Your task to perform on an android device: Open settings on Google Maps Image 0: 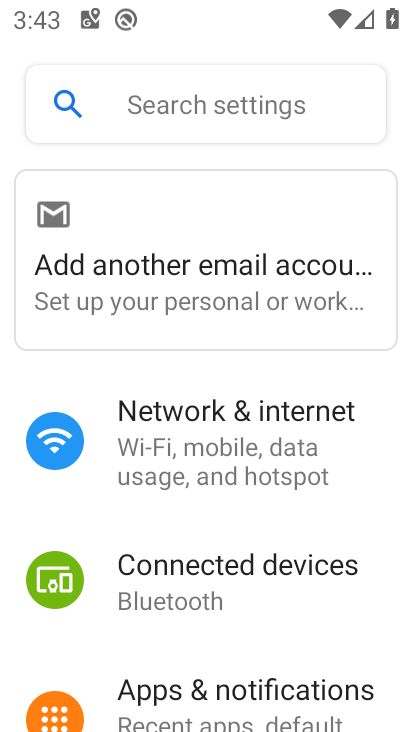
Step 0: press home button
Your task to perform on an android device: Open settings on Google Maps Image 1: 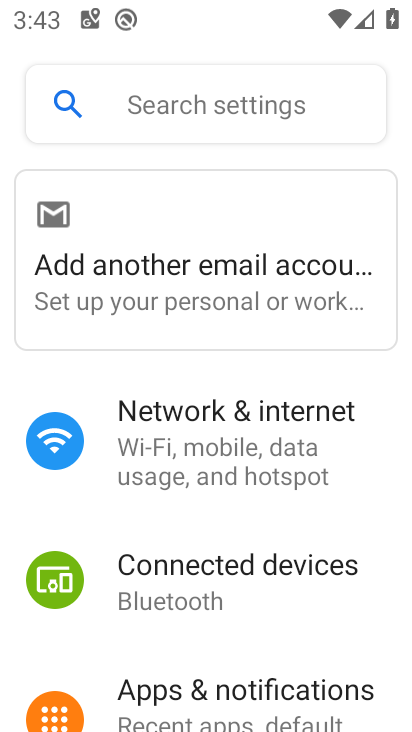
Step 1: press home button
Your task to perform on an android device: Open settings on Google Maps Image 2: 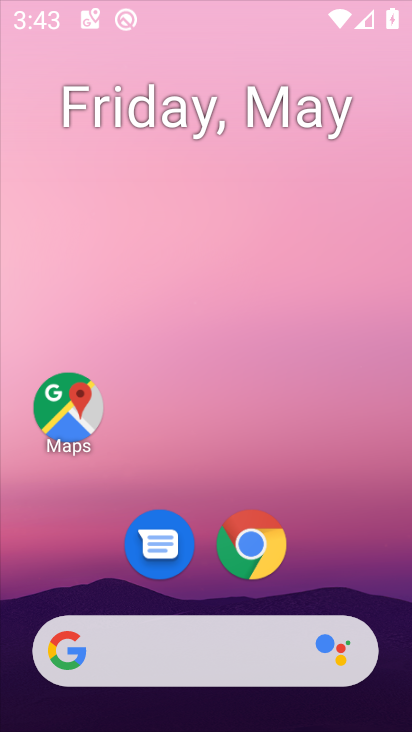
Step 2: press home button
Your task to perform on an android device: Open settings on Google Maps Image 3: 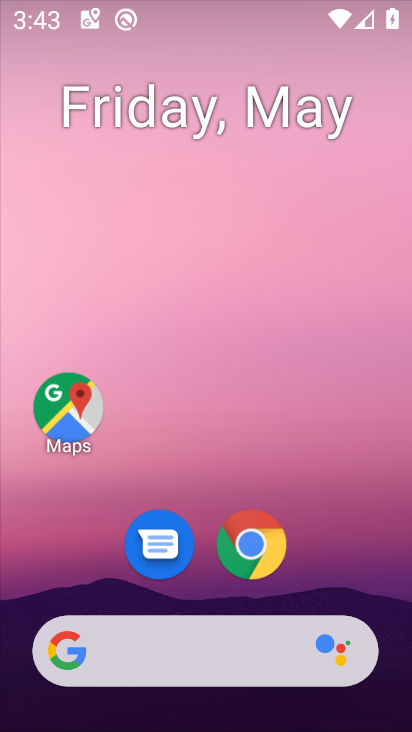
Step 3: press home button
Your task to perform on an android device: Open settings on Google Maps Image 4: 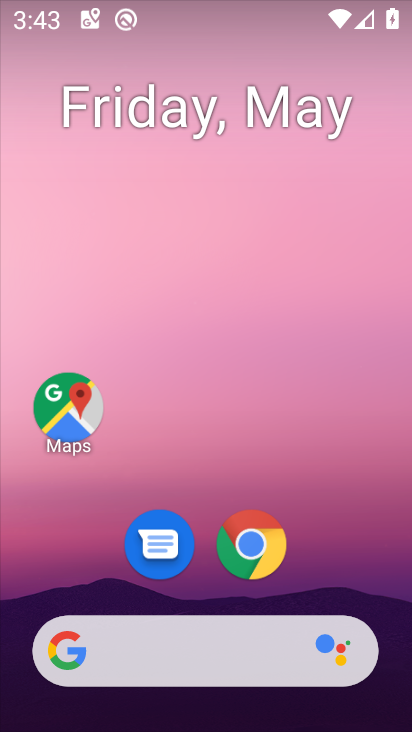
Step 4: press home button
Your task to perform on an android device: Open settings on Google Maps Image 5: 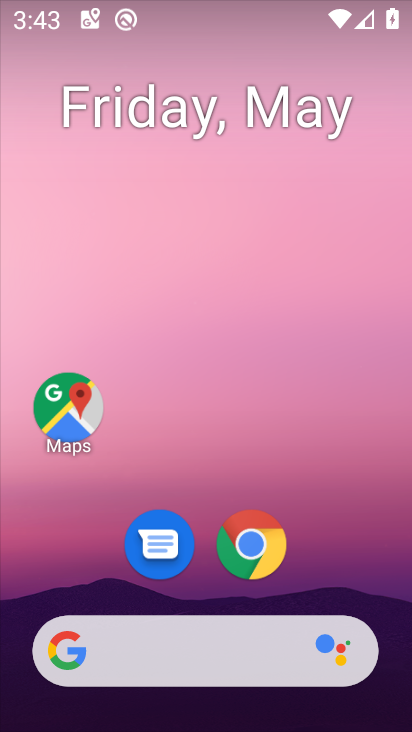
Step 5: drag from (276, 688) to (208, 56)
Your task to perform on an android device: Open settings on Google Maps Image 6: 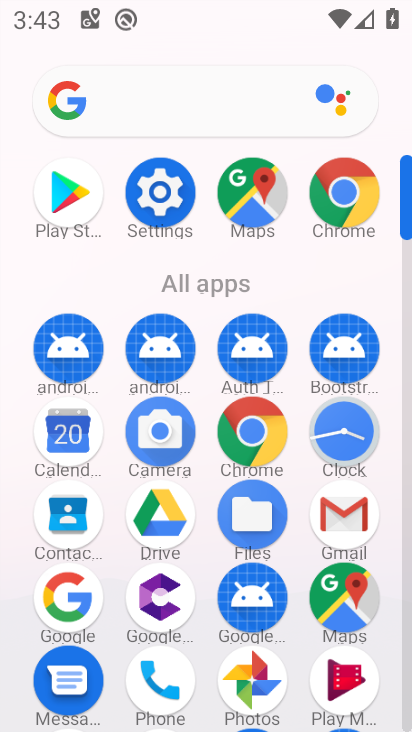
Step 6: click (258, 195)
Your task to perform on an android device: Open settings on Google Maps Image 7: 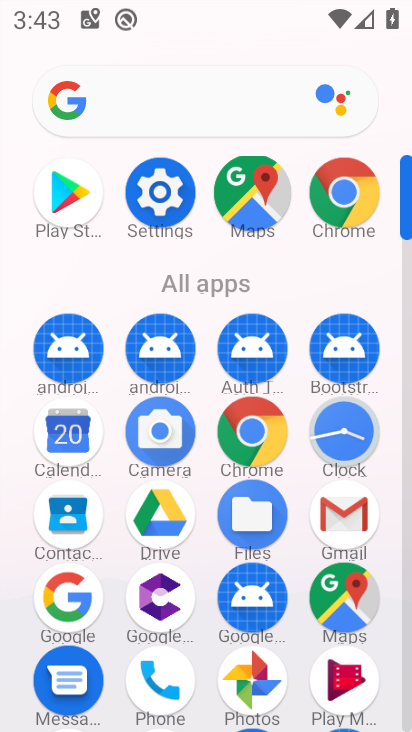
Step 7: click (258, 195)
Your task to perform on an android device: Open settings on Google Maps Image 8: 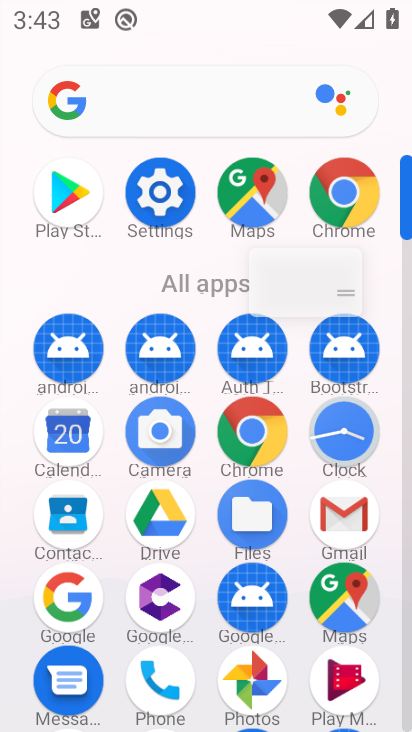
Step 8: click (258, 195)
Your task to perform on an android device: Open settings on Google Maps Image 9: 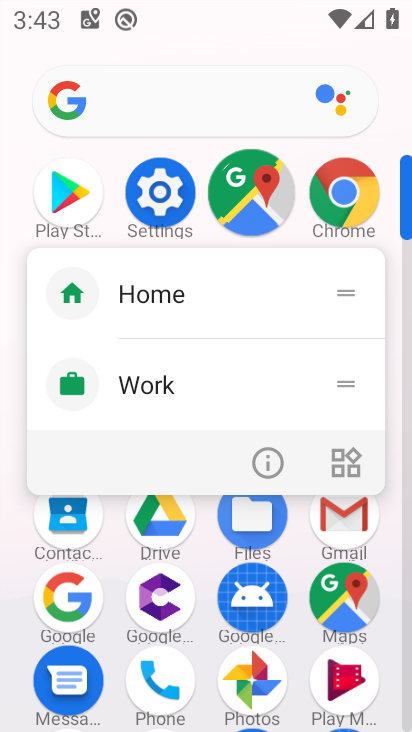
Step 9: click (258, 195)
Your task to perform on an android device: Open settings on Google Maps Image 10: 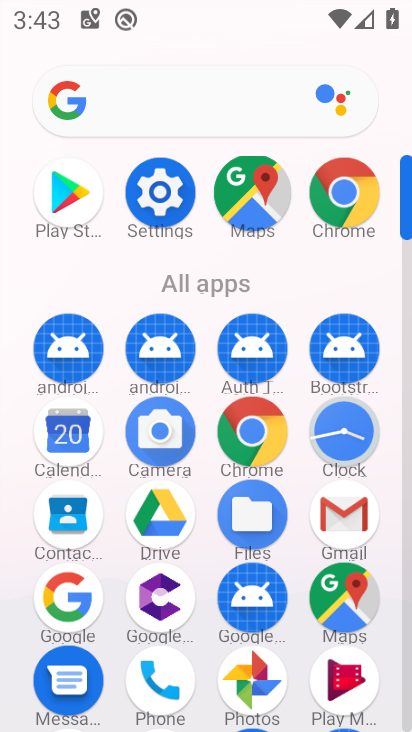
Step 10: click (258, 195)
Your task to perform on an android device: Open settings on Google Maps Image 11: 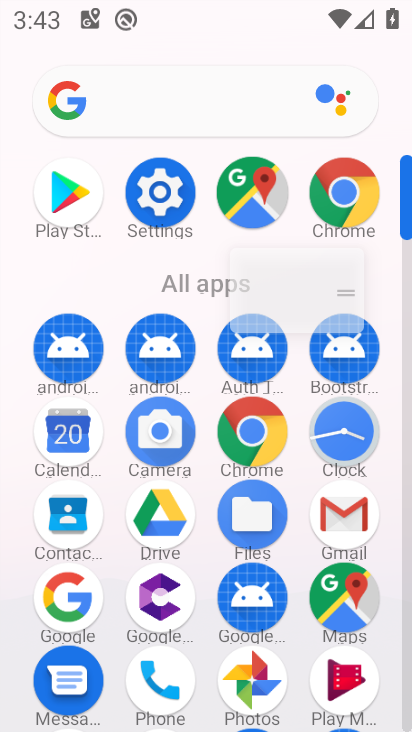
Step 11: click (258, 195)
Your task to perform on an android device: Open settings on Google Maps Image 12: 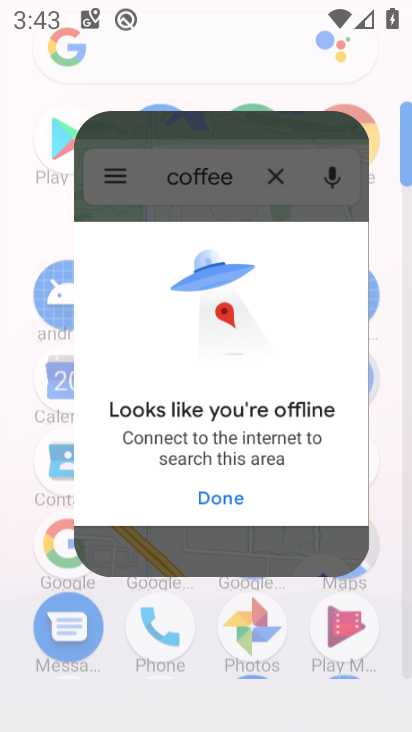
Step 12: click (258, 195)
Your task to perform on an android device: Open settings on Google Maps Image 13: 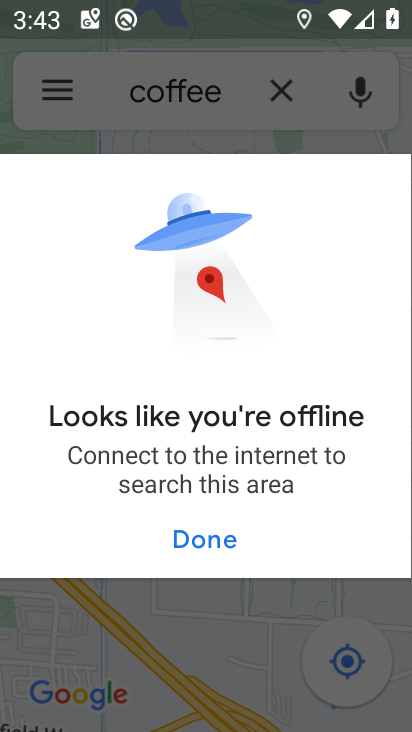
Step 13: click (206, 650)
Your task to perform on an android device: Open settings on Google Maps Image 14: 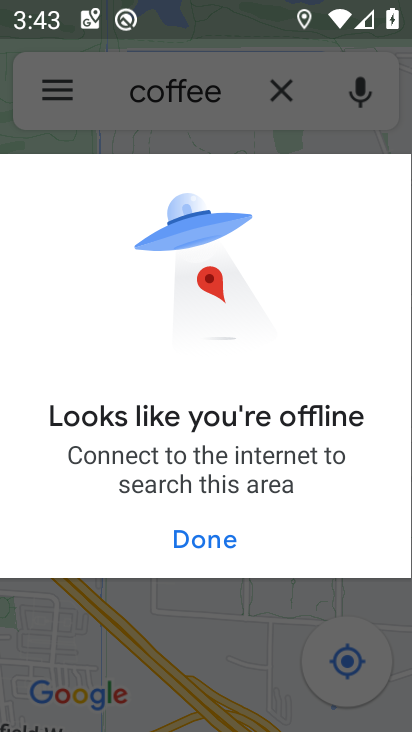
Step 14: click (205, 619)
Your task to perform on an android device: Open settings on Google Maps Image 15: 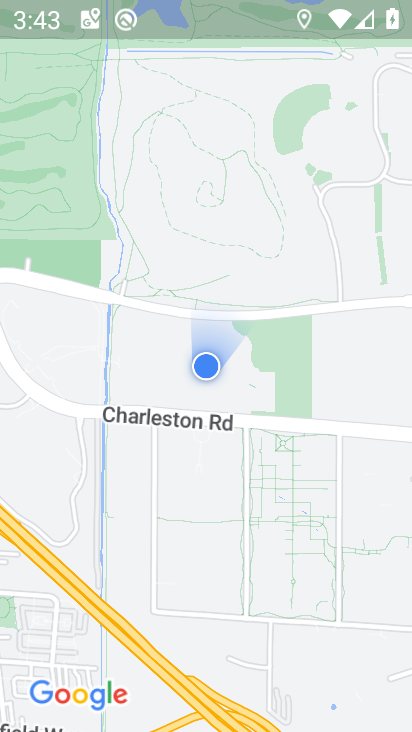
Step 15: drag from (198, 331) to (249, 569)
Your task to perform on an android device: Open settings on Google Maps Image 16: 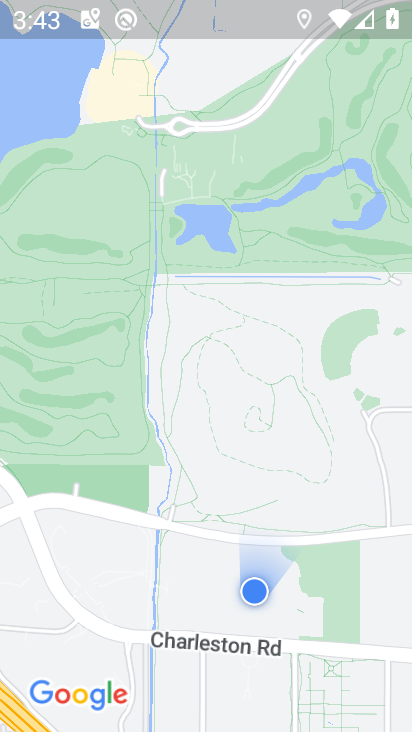
Step 16: drag from (133, 172) to (189, 521)
Your task to perform on an android device: Open settings on Google Maps Image 17: 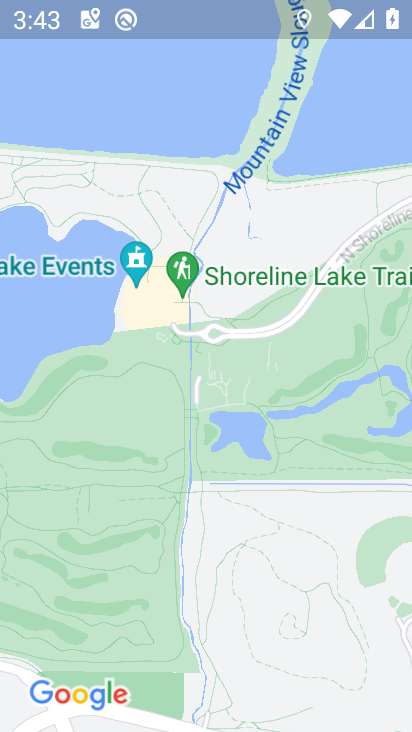
Step 17: drag from (105, 219) to (217, 705)
Your task to perform on an android device: Open settings on Google Maps Image 18: 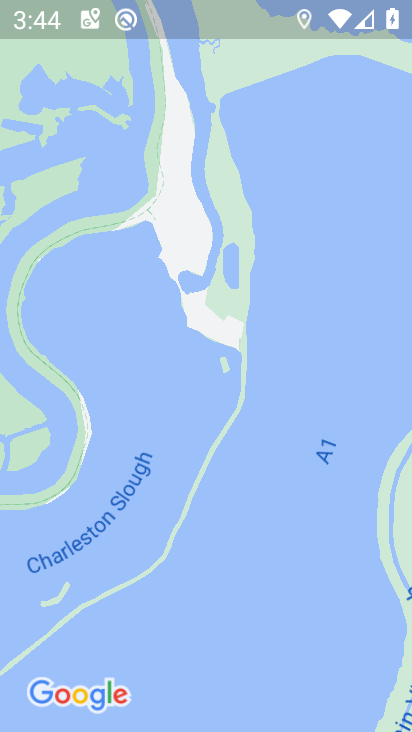
Step 18: drag from (200, 424) to (275, 605)
Your task to perform on an android device: Open settings on Google Maps Image 19: 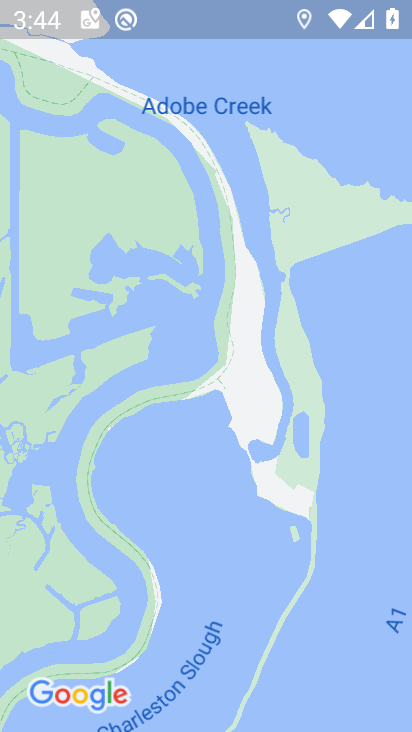
Step 19: drag from (143, 159) to (233, 588)
Your task to perform on an android device: Open settings on Google Maps Image 20: 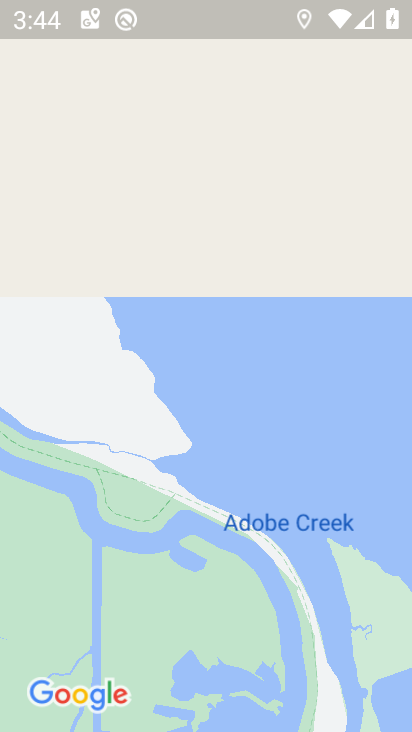
Step 20: drag from (132, 212) to (211, 567)
Your task to perform on an android device: Open settings on Google Maps Image 21: 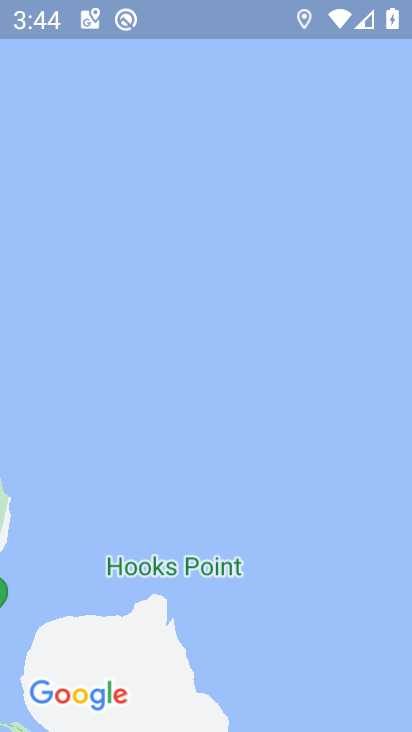
Step 21: drag from (138, 162) to (278, 574)
Your task to perform on an android device: Open settings on Google Maps Image 22: 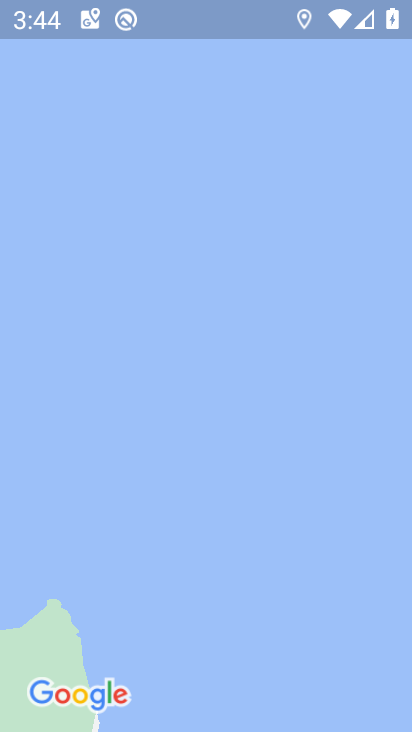
Step 22: drag from (245, 270) to (336, 588)
Your task to perform on an android device: Open settings on Google Maps Image 23: 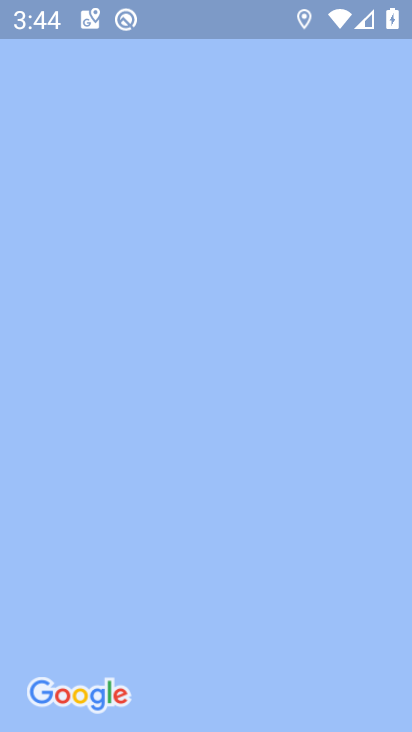
Step 23: drag from (220, 240) to (306, 506)
Your task to perform on an android device: Open settings on Google Maps Image 24: 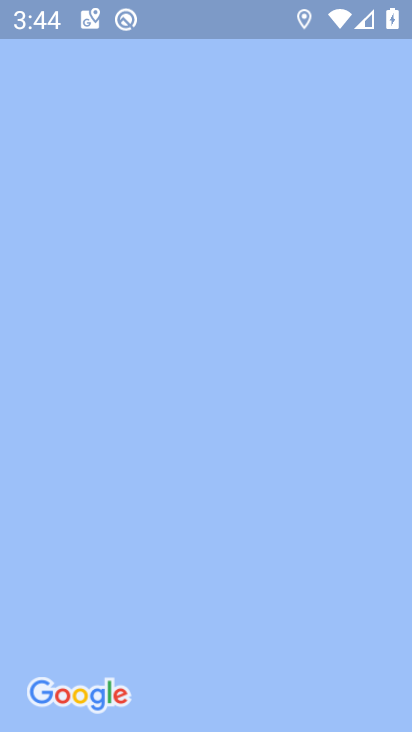
Step 24: drag from (282, 218) to (319, 432)
Your task to perform on an android device: Open settings on Google Maps Image 25: 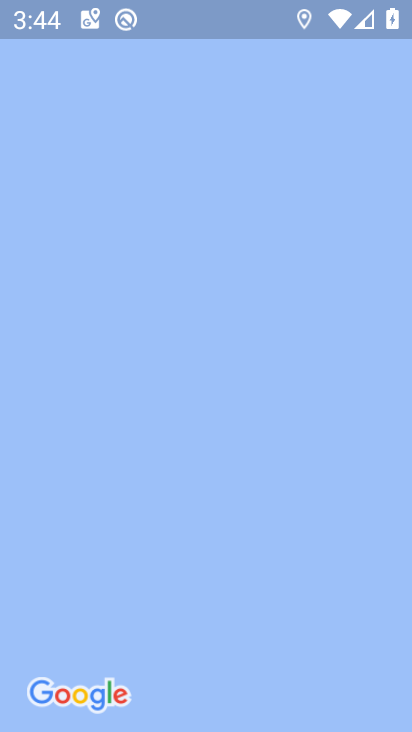
Step 25: drag from (239, 83) to (294, 305)
Your task to perform on an android device: Open settings on Google Maps Image 26: 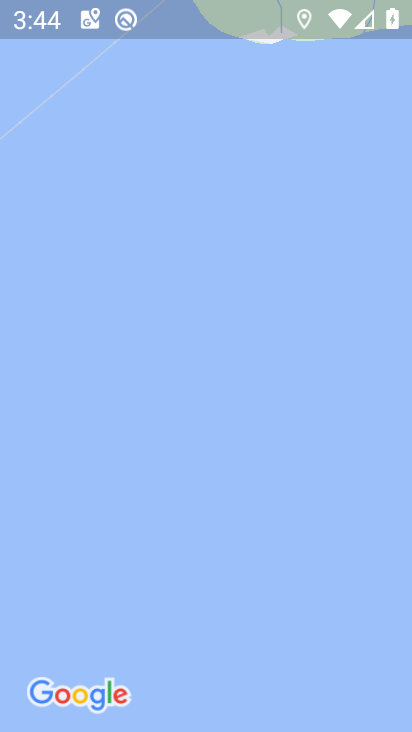
Step 26: press back button
Your task to perform on an android device: Open settings on Google Maps Image 27: 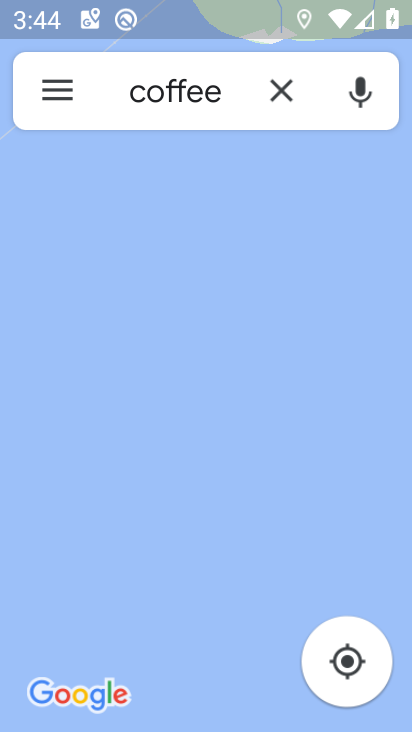
Step 27: click (68, 88)
Your task to perform on an android device: Open settings on Google Maps Image 28: 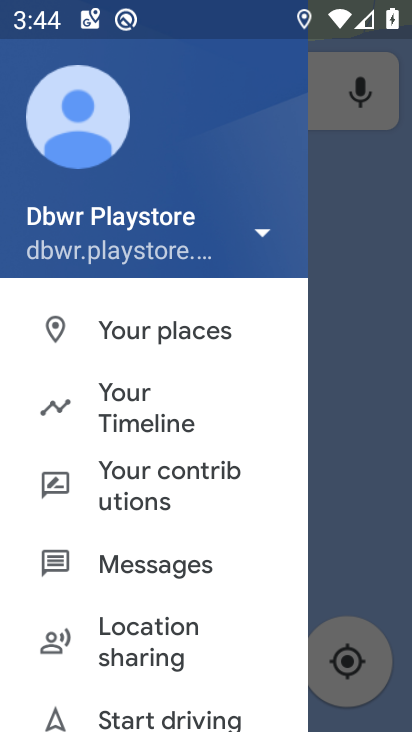
Step 28: click (120, 425)
Your task to perform on an android device: Open settings on Google Maps Image 29: 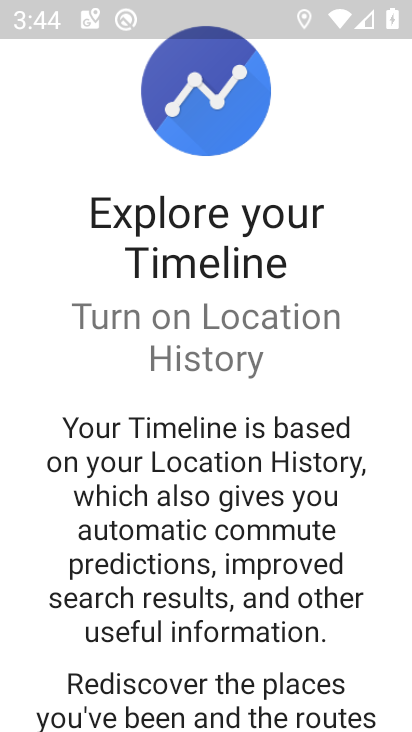
Step 29: drag from (283, 677) to (291, 257)
Your task to perform on an android device: Open settings on Google Maps Image 30: 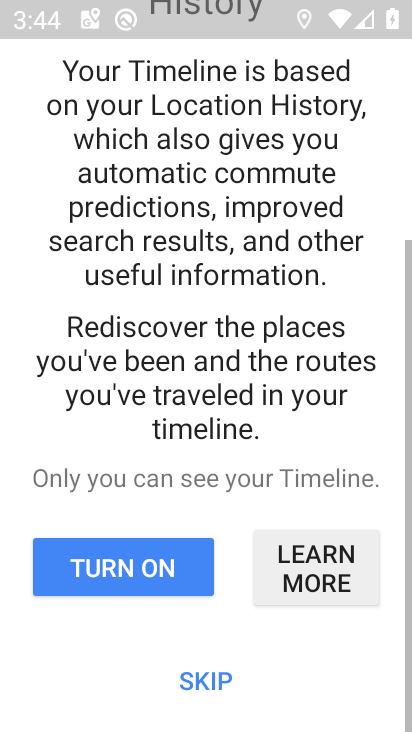
Step 30: drag from (265, 443) to (275, 148)
Your task to perform on an android device: Open settings on Google Maps Image 31: 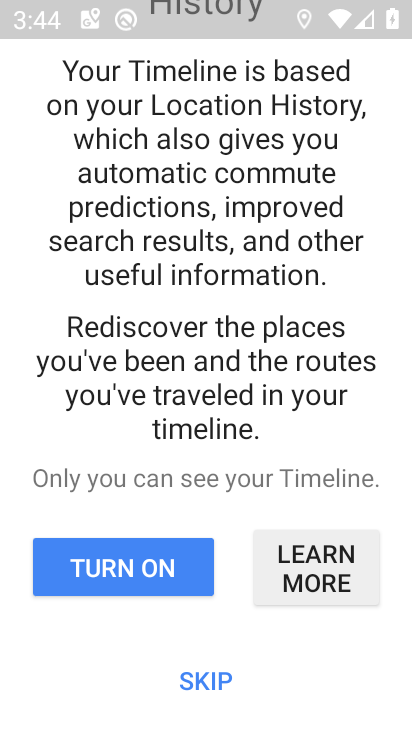
Step 31: click (114, 574)
Your task to perform on an android device: Open settings on Google Maps Image 32: 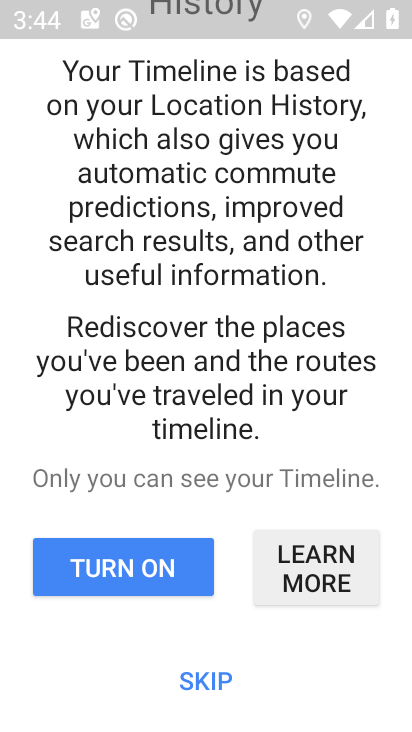
Step 32: click (114, 574)
Your task to perform on an android device: Open settings on Google Maps Image 33: 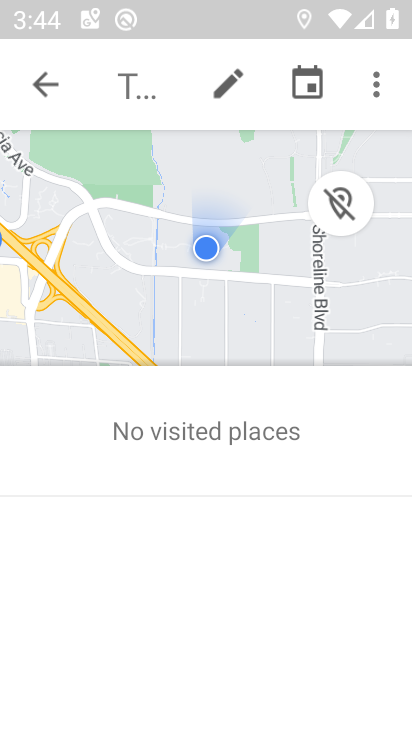
Step 33: click (375, 93)
Your task to perform on an android device: Open settings on Google Maps Image 34: 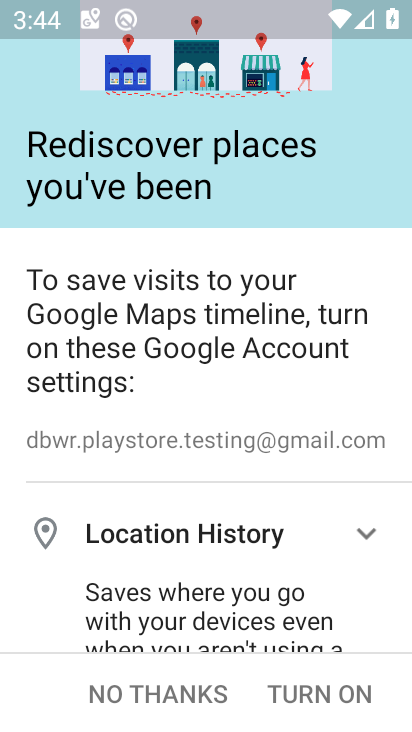
Step 34: click (295, 705)
Your task to perform on an android device: Open settings on Google Maps Image 35: 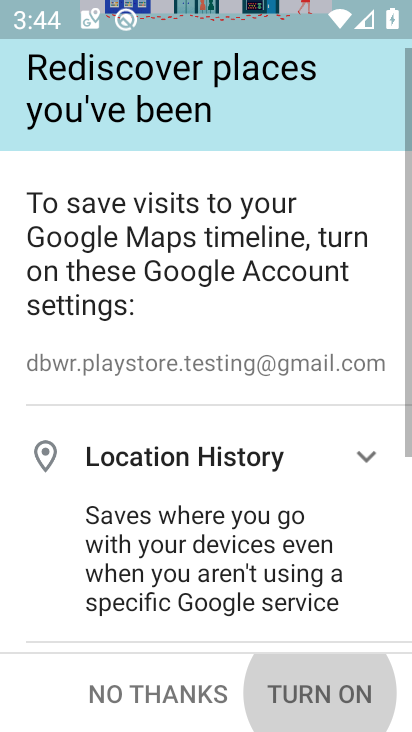
Step 35: click (295, 705)
Your task to perform on an android device: Open settings on Google Maps Image 36: 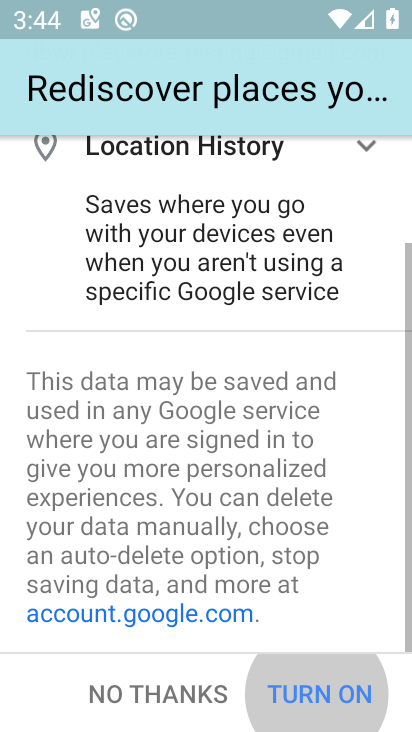
Step 36: click (295, 705)
Your task to perform on an android device: Open settings on Google Maps Image 37: 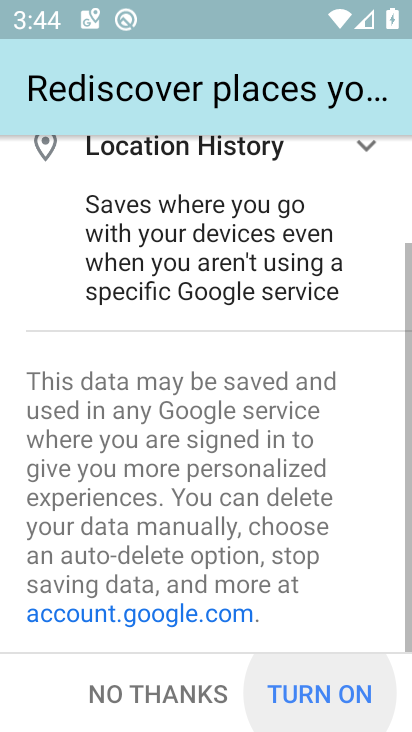
Step 37: click (295, 705)
Your task to perform on an android device: Open settings on Google Maps Image 38: 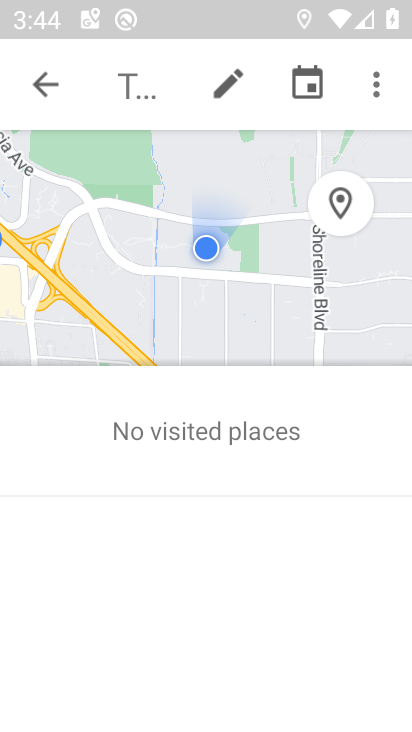
Step 38: task complete